Your task to perform on an android device: toggle show notifications on the lock screen Image 0: 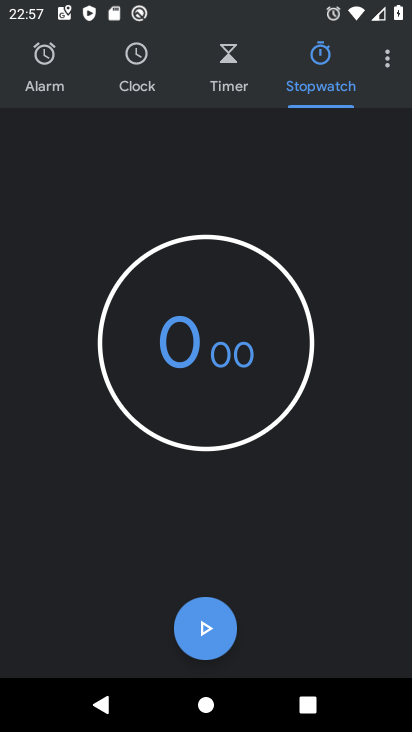
Step 0: press home button
Your task to perform on an android device: toggle show notifications on the lock screen Image 1: 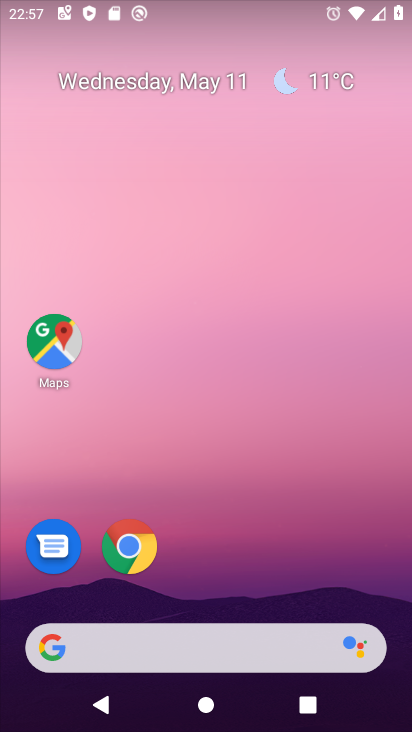
Step 1: drag from (395, 634) to (298, 24)
Your task to perform on an android device: toggle show notifications on the lock screen Image 2: 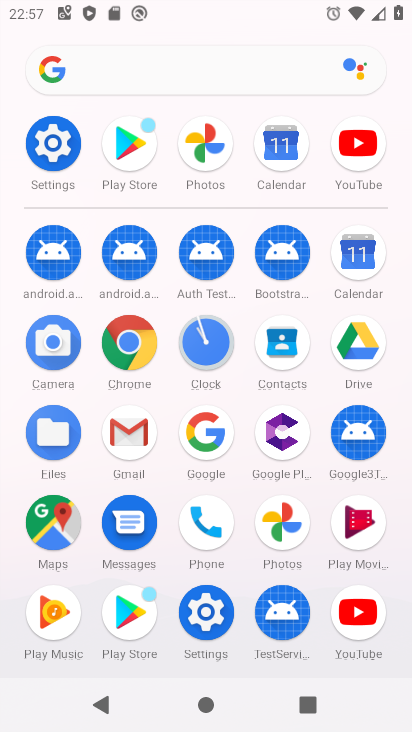
Step 2: click (206, 615)
Your task to perform on an android device: toggle show notifications on the lock screen Image 3: 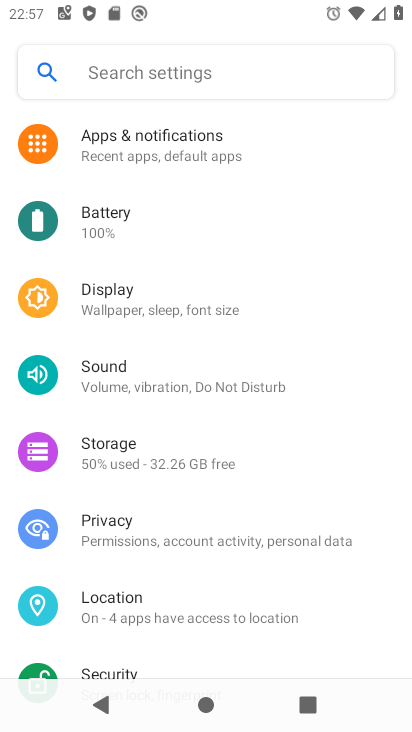
Step 3: click (126, 135)
Your task to perform on an android device: toggle show notifications on the lock screen Image 4: 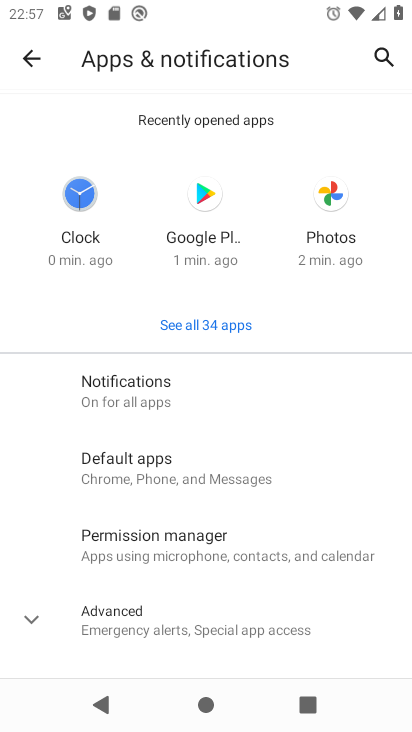
Step 4: click (122, 385)
Your task to perform on an android device: toggle show notifications on the lock screen Image 5: 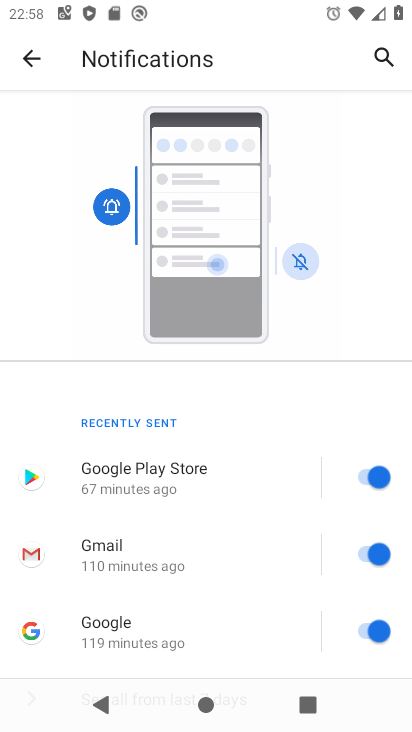
Step 5: drag from (316, 639) to (232, 225)
Your task to perform on an android device: toggle show notifications on the lock screen Image 6: 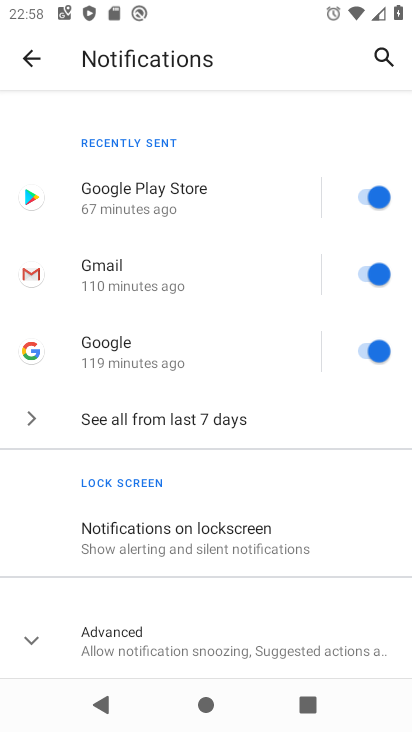
Step 6: click (107, 534)
Your task to perform on an android device: toggle show notifications on the lock screen Image 7: 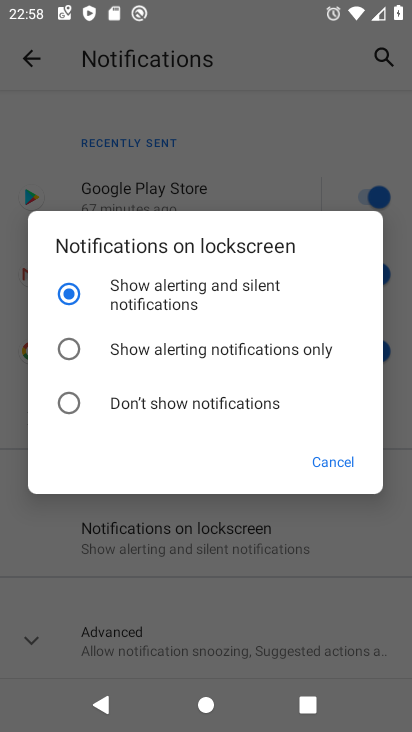
Step 7: click (69, 345)
Your task to perform on an android device: toggle show notifications on the lock screen Image 8: 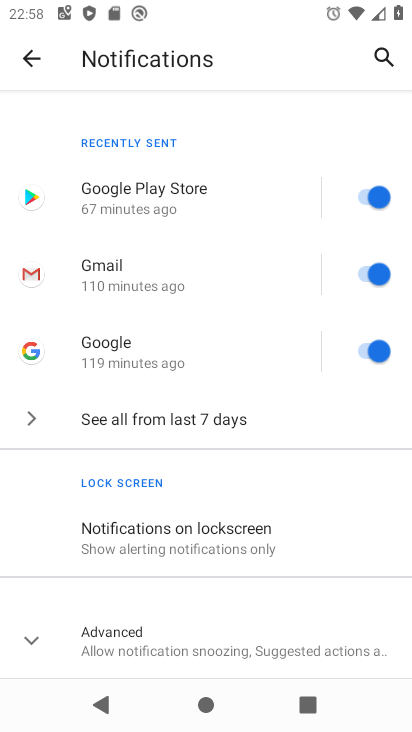
Step 8: task complete